Your task to perform on an android device: Open Yahoo.com Image 0: 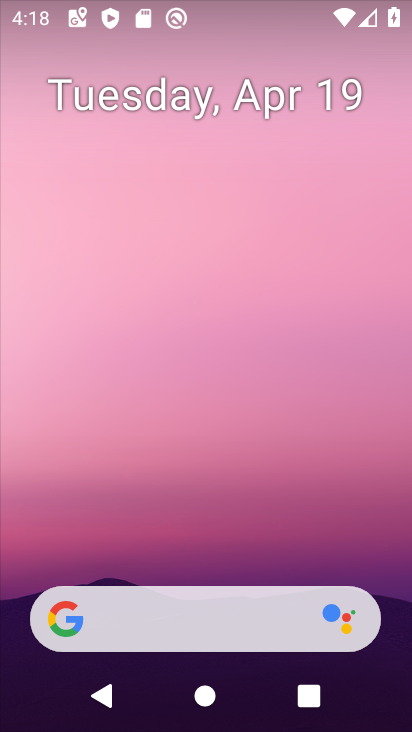
Step 0: drag from (246, 565) to (222, 193)
Your task to perform on an android device: Open Yahoo.com Image 1: 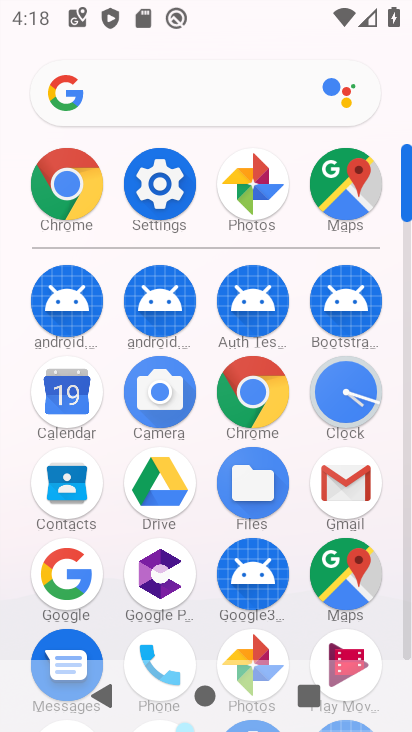
Step 1: click (74, 185)
Your task to perform on an android device: Open Yahoo.com Image 2: 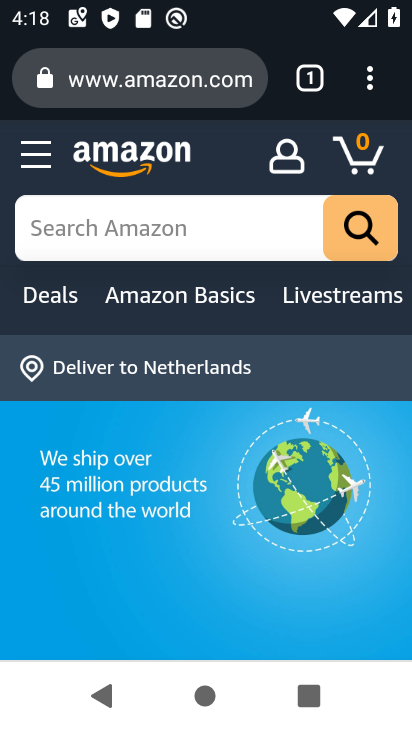
Step 2: click (191, 76)
Your task to perform on an android device: Open Yahoo.com Image 3: 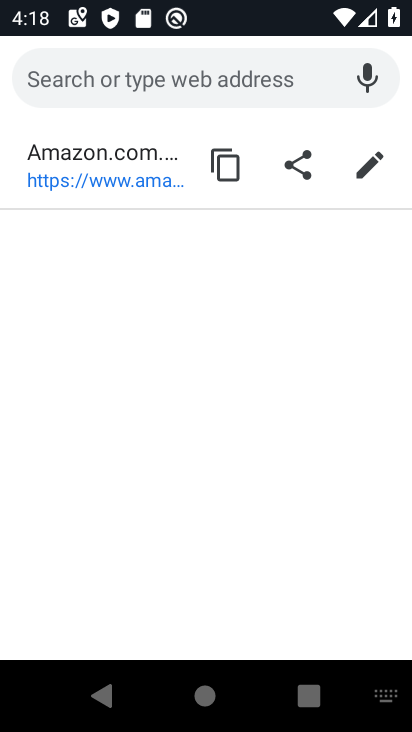
Step 3: click (260, 72)
Your task to perform on an android device: Open Yahoo.com Image 4: 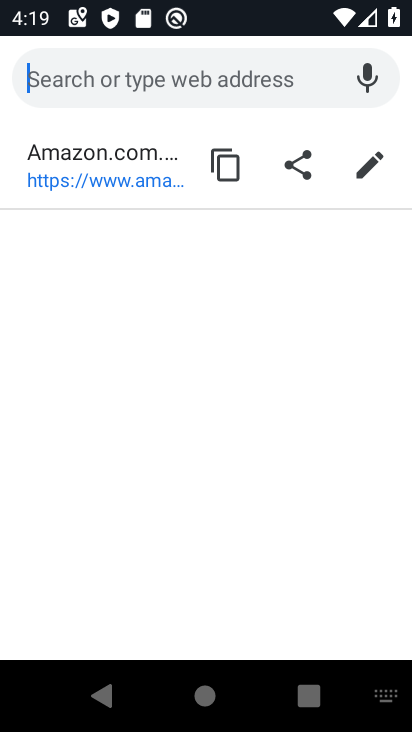
Step 4: type "Yahoo.com"
Your task to perform on an android device: Open Yahoo.com Image 5: 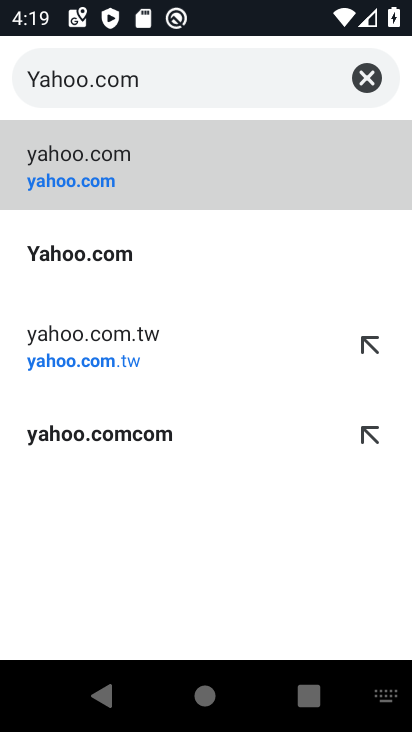
Step 5: click (96, 181)
Your task to perform on an android device: Open Yahoo.com Image 6: 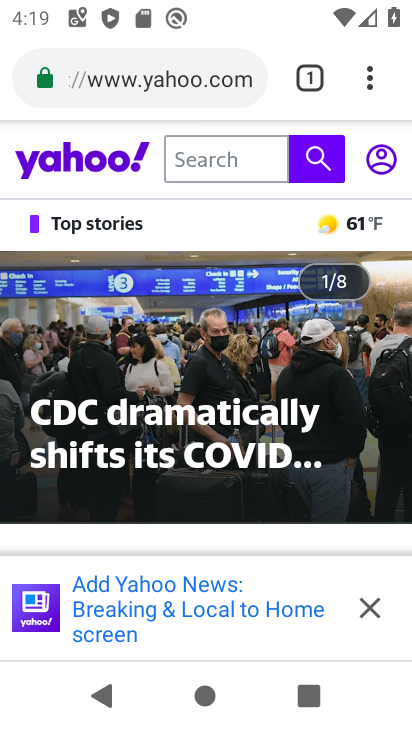
Step 6: task complete